Your task to perform on an android device: open device folders in google photos Image 0: 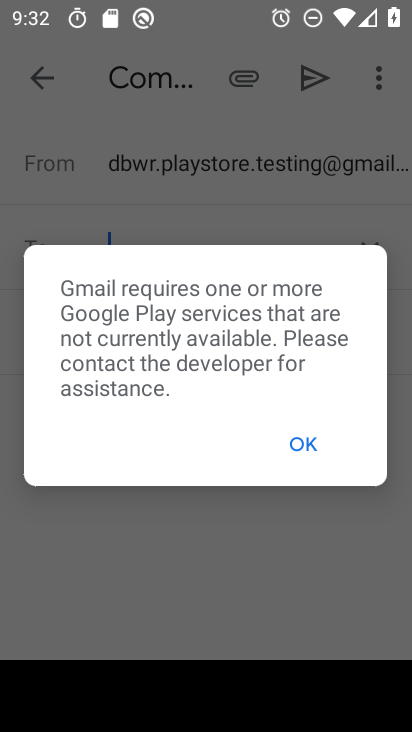
Step 0: press home button
Your task to perform on an android device: open device folders in google photos Image 1: 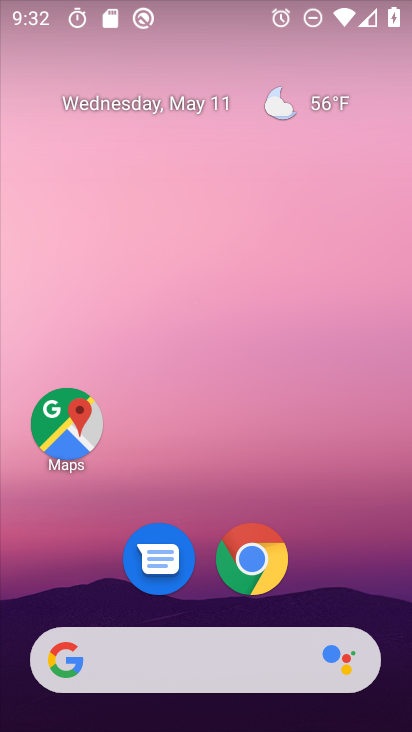
Step 1: click (296, 484)
Your task to perform on an android device: open device folders in google photos Image 2: 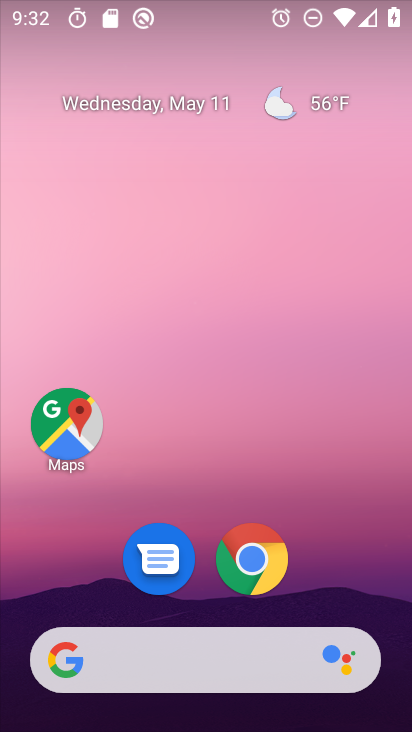
Step 2: drag from (296, 484) to (274, 271)
Your task to perform on an android device: open device folders in google photos Image 3: 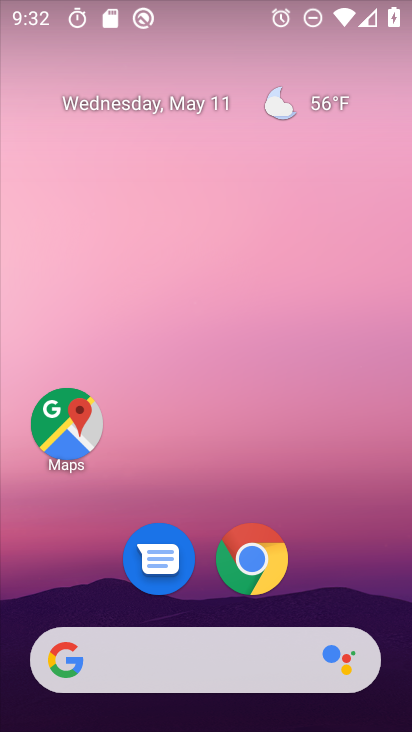
Step 3: drag from (308, 507) to (173, 220)
Your task to perform on an android device: open device folders in google photos Image 4: 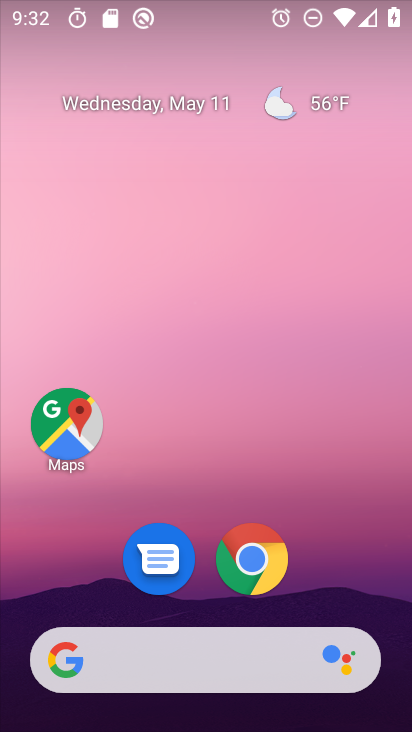
Step 4: drag from (264, 448) to (75, 52)
Your task to perform on an android device: open device folders in google photos Image 5: 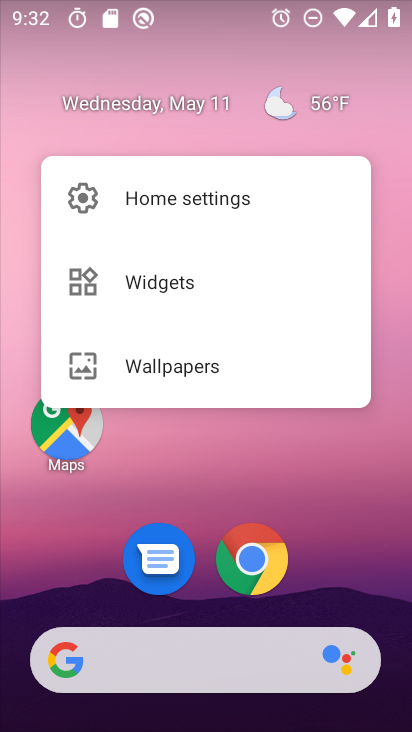
Step 5: click (223, 483)
Your task to perform on an android device: open device folders in google photos Image 6: 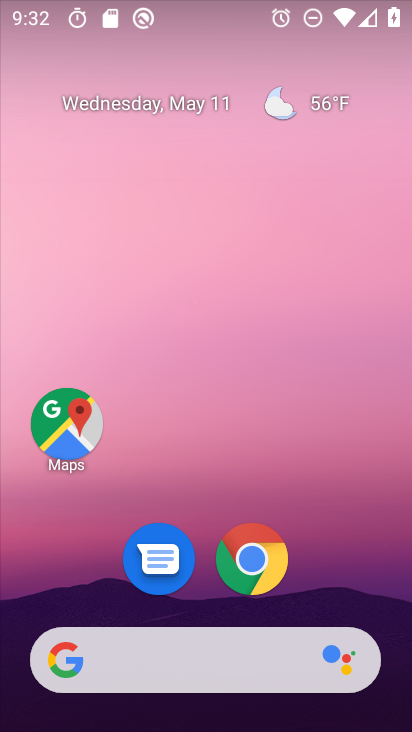
Step 6: drag from (223, 483) to (215, 108)
Your task to perform on an android device: open device folders in google photos Image 7: 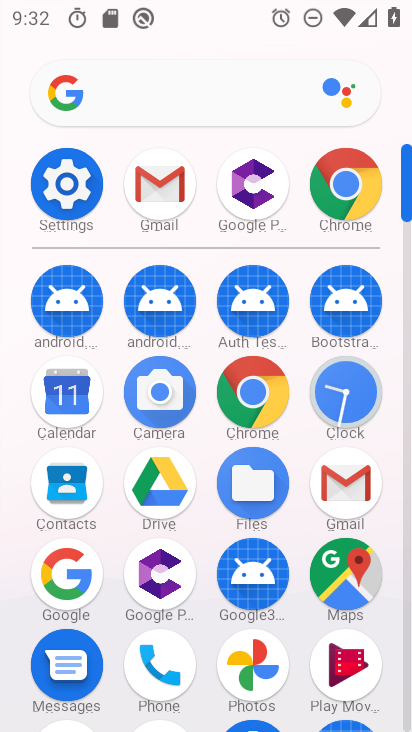
Step 7: click (257, 655)
Your task to perform on an android device: open device folders in google photos Image 8: 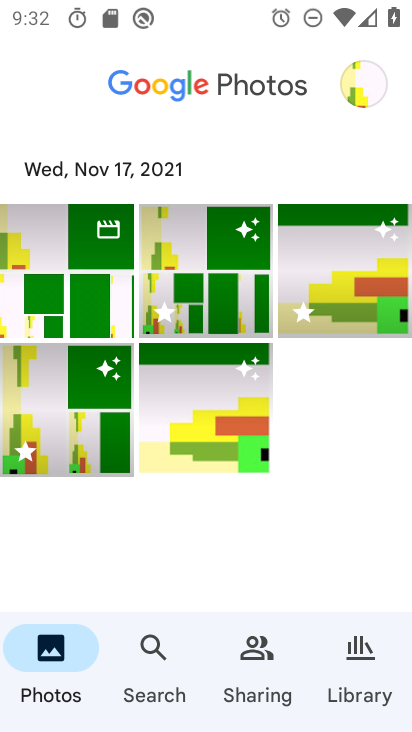
Step 8: click (161, 655)
Your task to perform on an android device: open device folders in google photos Image 9: 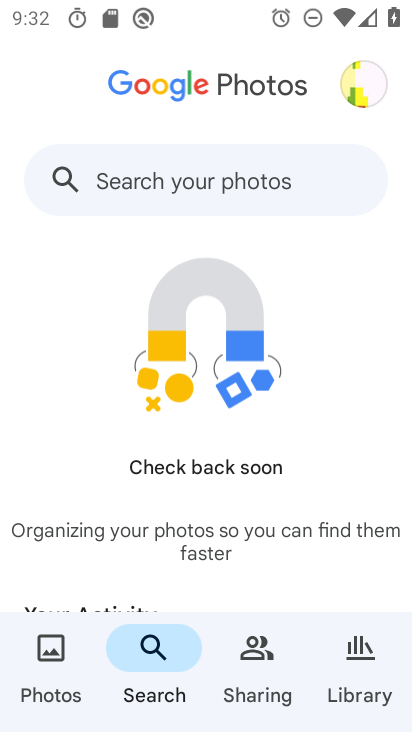
Step 9: click (257, 193)
Your task to perform on an android device: open device folders in google photos Image 10: 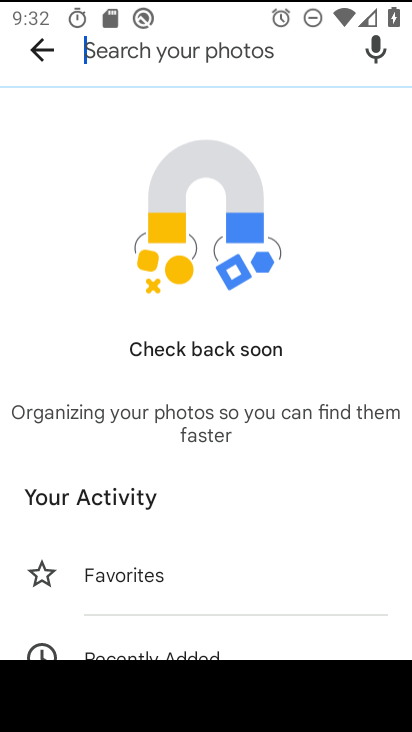
Step 10: type "device folders"
Your task to perform on an android device: open device folders in google photos Image 11: 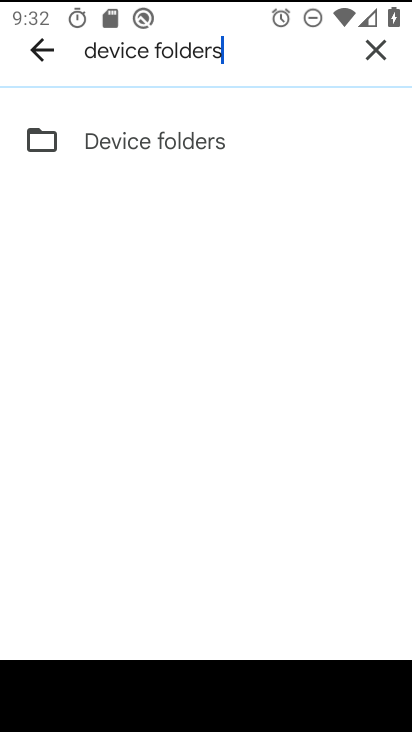
Step 11: click (222, 153)
Your task to perform on an android device: open device folders in google photos Image 12: 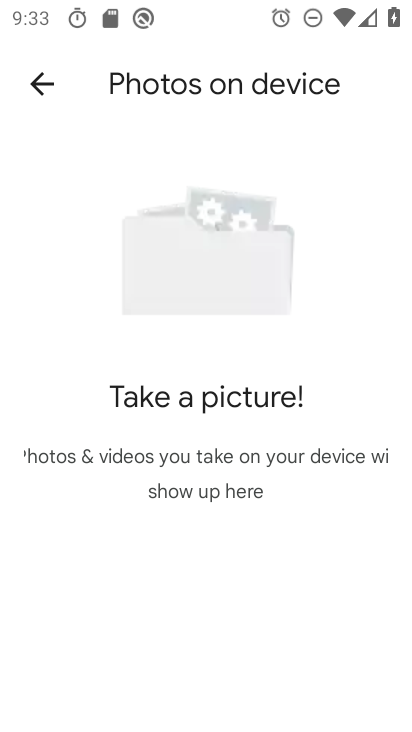
Step 12: task complete